Your task to perform on an android device: clear all cookies in the chrome app Image 0: 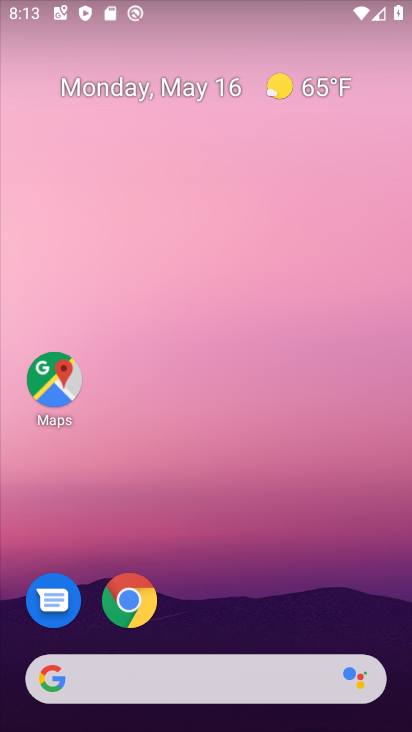
Step 0: drag from (208, 651) to (358, 157)
Your task to perform on an android device: clear all cookies in the chrome app Image 1: 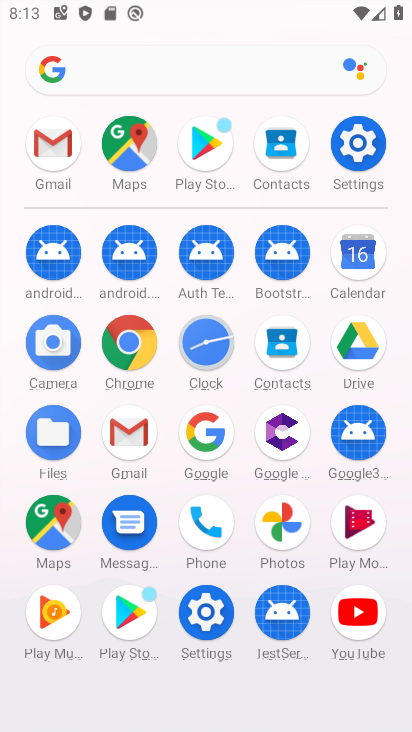
Step 1: click (133, 335)
Your task to perform on an android device: clear all cookies in the chrome app Image 2: 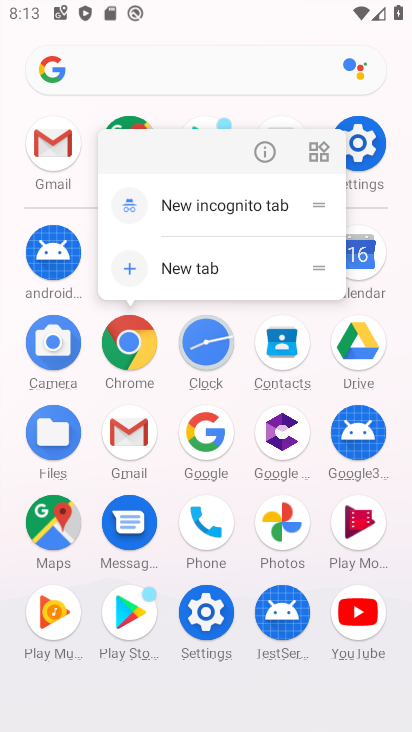
Step 2: click (260, 158)
Your task to perform on an android device: clear all cookies in the chrome app Image 3: 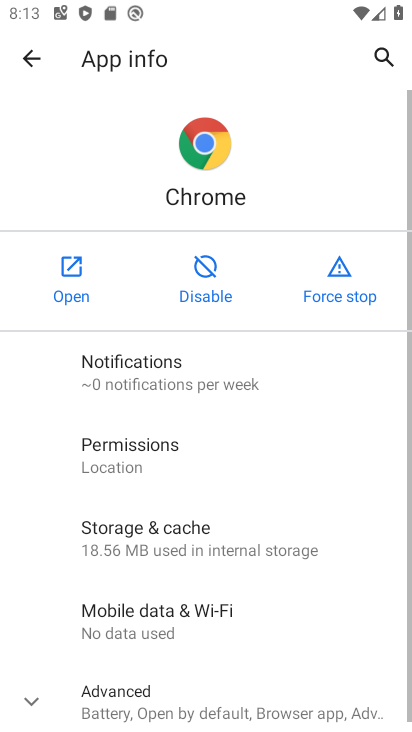
Step 3: click (47, 278)
Your task to perform on an android device: clear all cookies in the chrome app Image 4: 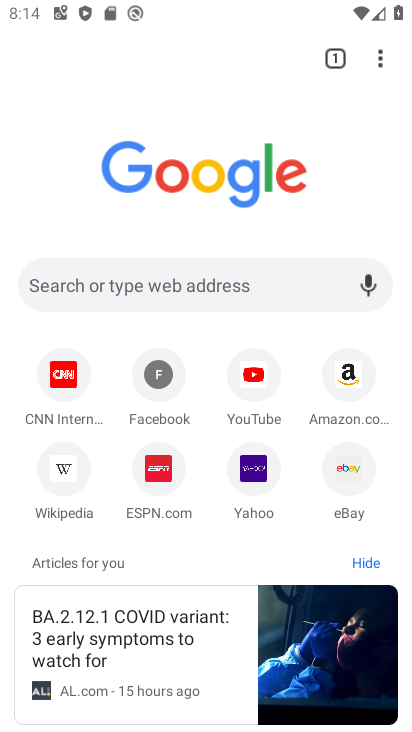
Step 4: click (383, 57)
Your task to perform on an android device: clear all cookies in the chrome app Image 5: 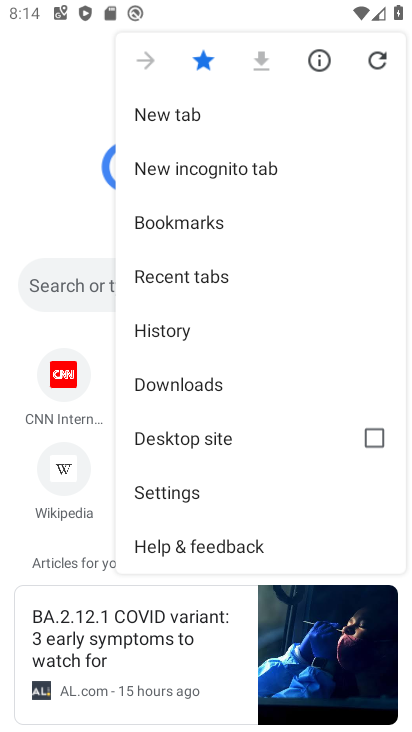
Step 5: click (174, 325)
Your task to perform on an android device: clear all cookies in the chrome app Image 6: 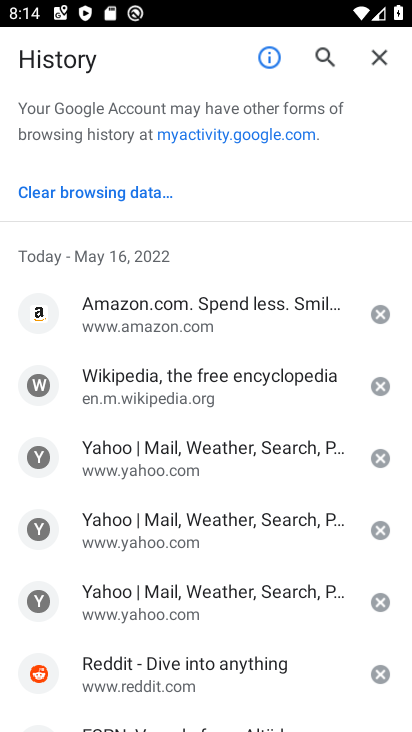
Step 6: click (73, 199)
Your task to perform on an android device: clear all cookies in the chrome app Image 7: 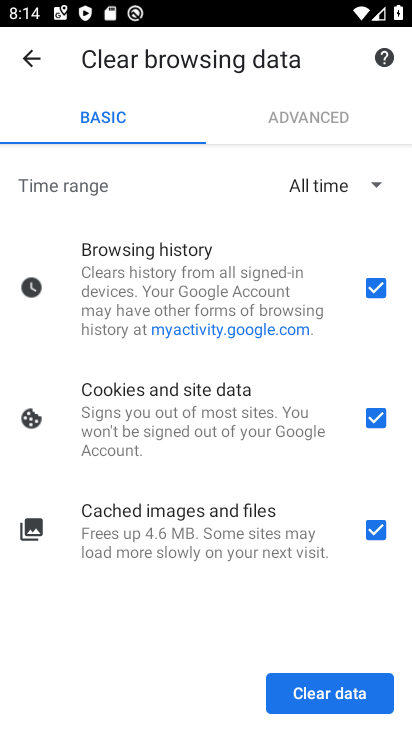
Step 7: click (369, 301)
Your task to perform on an android device: clear all cookies in the chrome app Image 8: 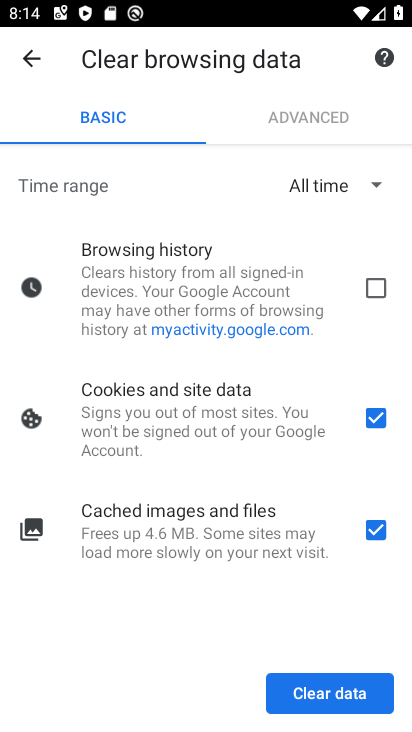
Step 8: click (332, 693)
Your task to perform on an android device: clear all cookies in the chrome app Image 9: 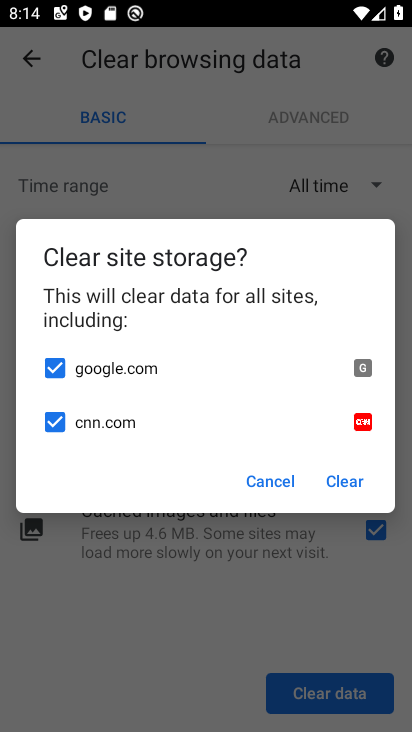
Step 9: click (353, 492)
Your task to perform on an android device: clear all cookies in the chrome app Image 10: 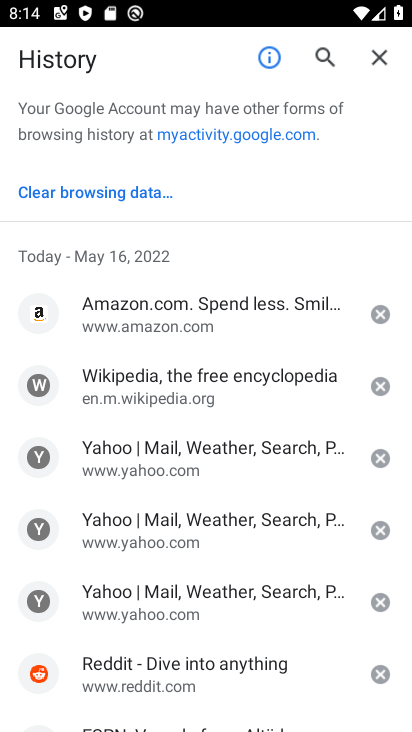
Step 10: task complete